Your task to perform on an android device: turn on priority inbox in the gmail app Image 0: 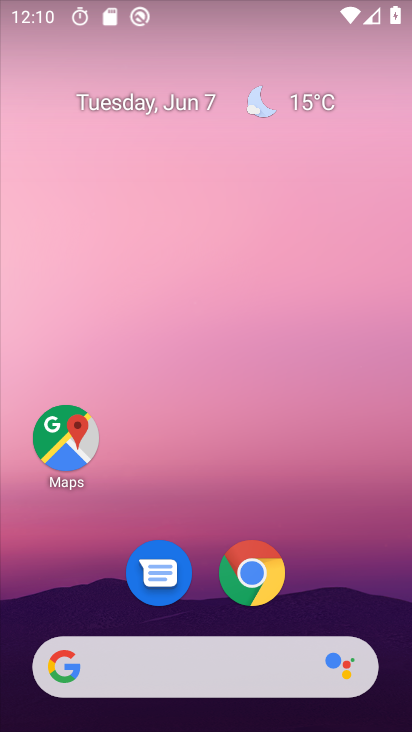
Step 0: drag from (211, 606) to (188, 215)
Your task to perform on an android device: turn on priority inbox in the gmail app Image 1: 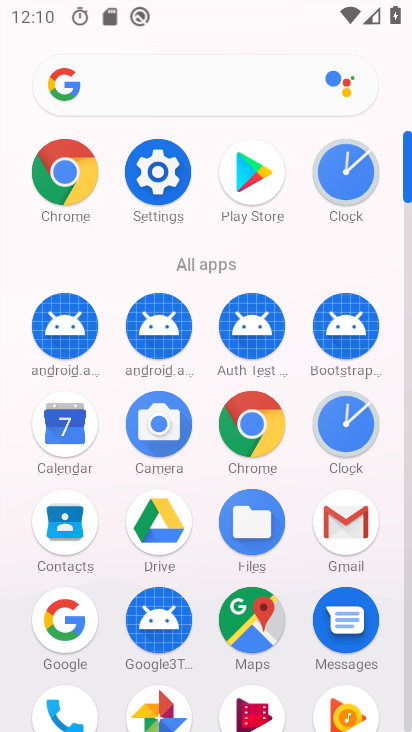
Step 1: click (356, 539)
Your task to perform on an android device: turn on priority inbox in the gmail app Image 2: 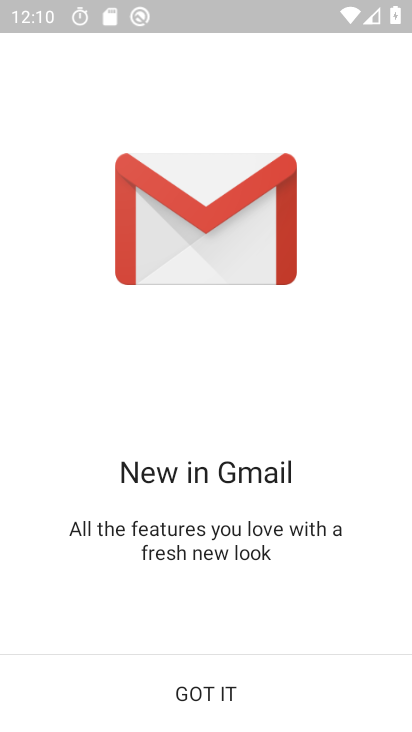
Step 2: click (298, 689)
Your task to perform on an android device: turn on priority inbox in the gmail app Image 3: 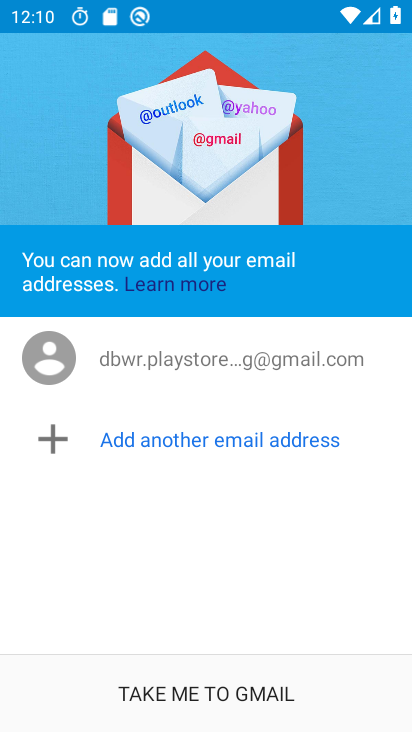
Step 3: click (298, 689)
Your task to perform on an android device: turn on priority inbox in the gmail app Image 4: 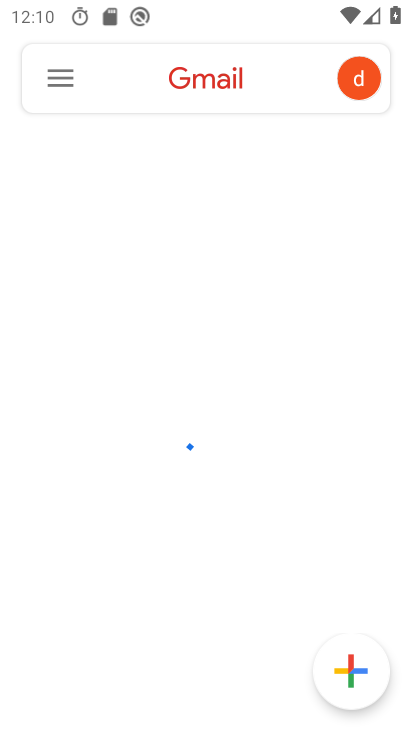
Step 4: click (56, 82)
Your task to perform on an android device: turn on priority inbox in the gmail app Image 5: 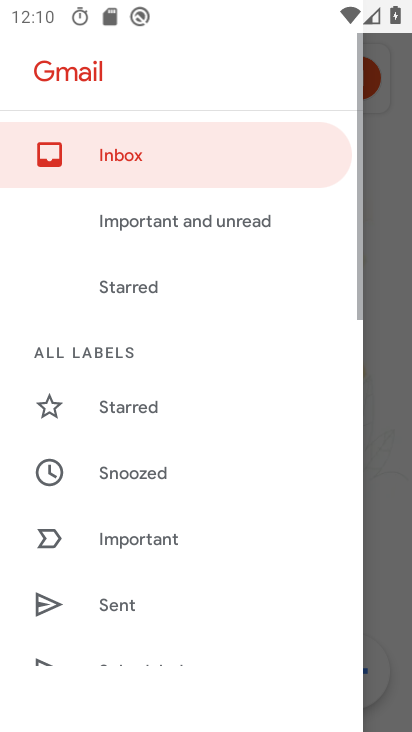
Step 5: drag from (171, 556) to (174, 230)
Your task to perform on an android device: turn on priority inbox in the gmail app Image 6: 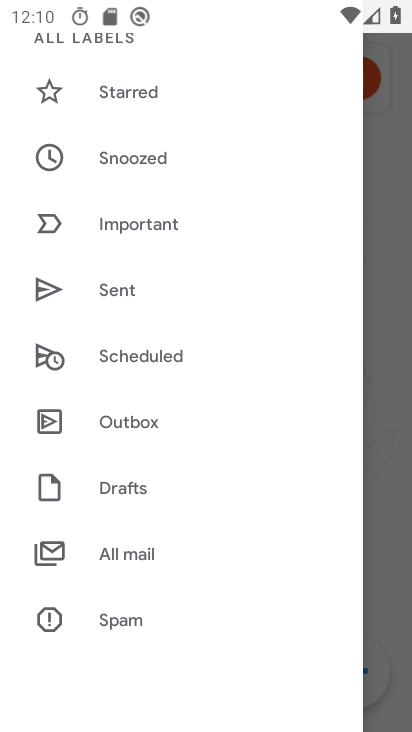
Step 6: drag from (170, 583) to (171, 259)
Your task to perform on an android device: turn on priority inbox in the gmail app Image 7: 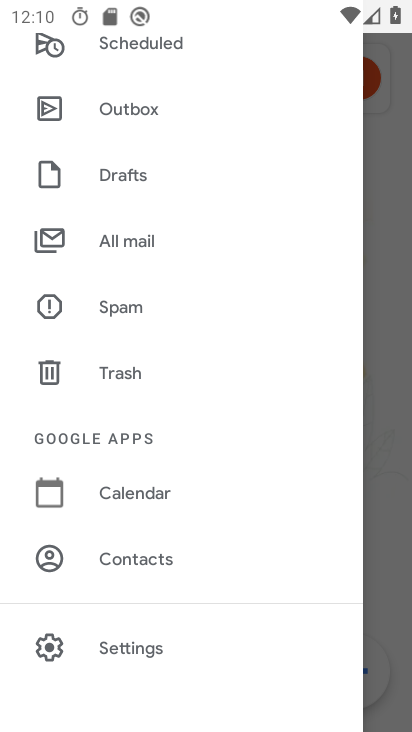
Step 7: click (154, 644)
Your task to perform on an android device: turn on priority inbox in the gmail app Image 8: 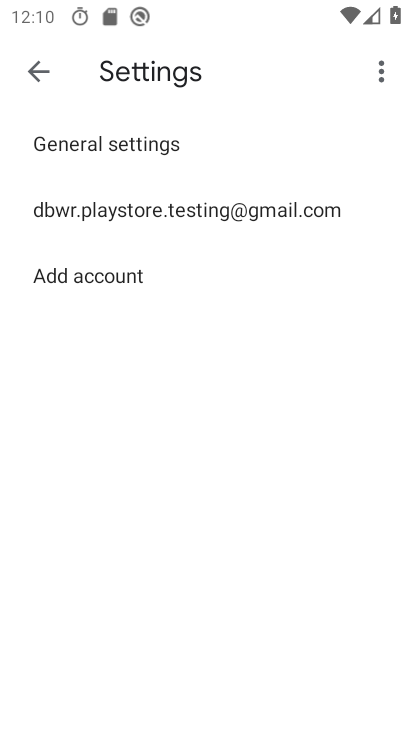
Step 8: click (188, 205)
Your task to perform on an android device: turn on priority inbox in the gmail app Image 9: 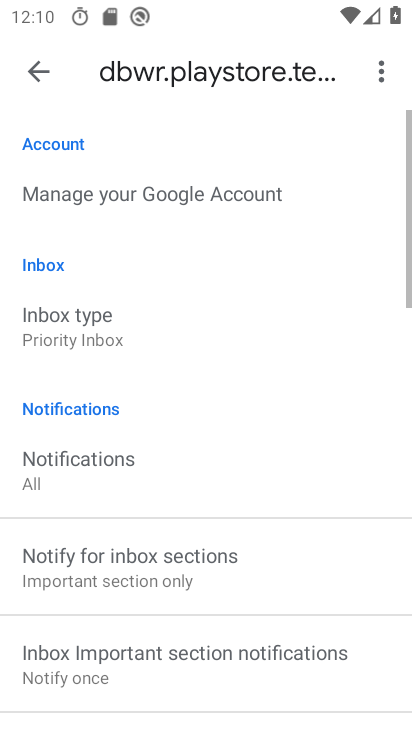
Step 9: drag from (222, 456) to (197, 270)
Your task to perform on an android device: turn on priority inbox in the gmail app Image 10: 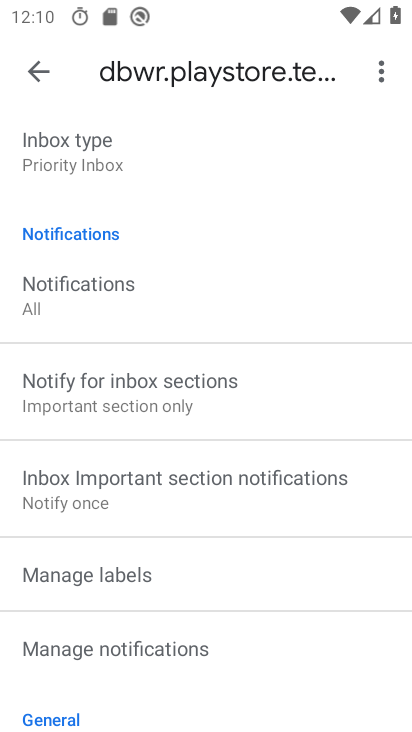
Step 10: click (133, 150)
Your task to perform on an android device: turn on priority inbox in the gmail app Image 11: 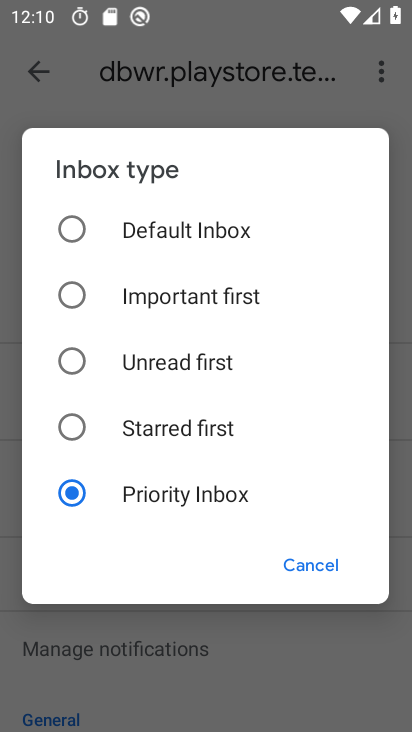
Step 11: task complete